Your task to perform on an android device: check battery use Image 0: 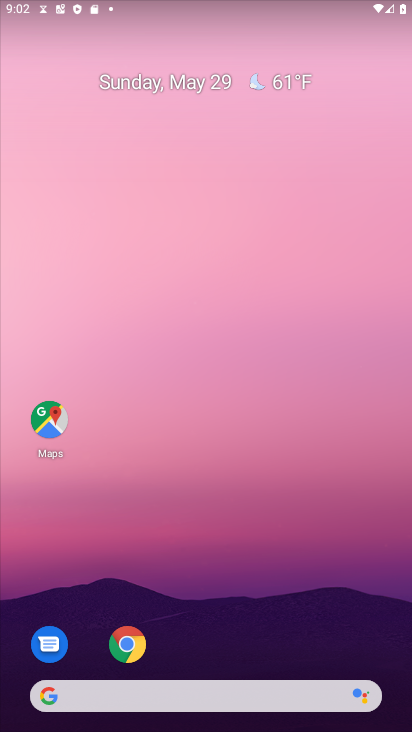
Step 0: drag from (230, 684) to (278, 302)
Your task to perform on an android device: check battery use Image 1: 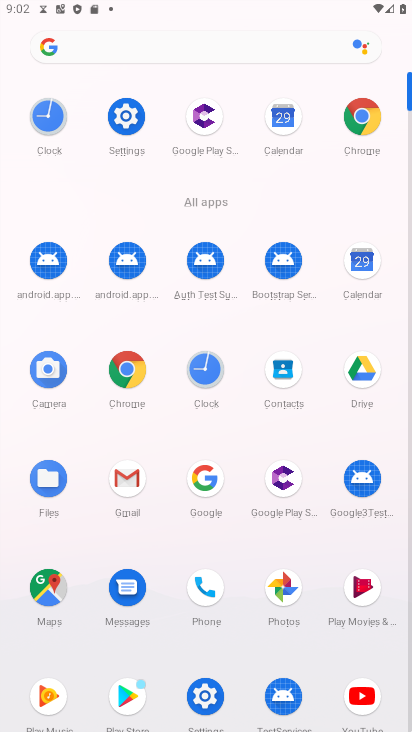
Step 1: click (122, 158)
Your task to perform on an android device: check battery use Image 2: 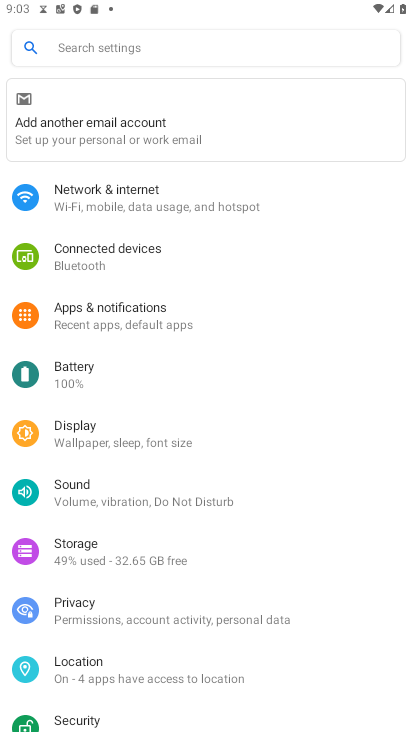
Step 2: click (95, 387)
Your task to perform on an android device: check battery use Image 3: 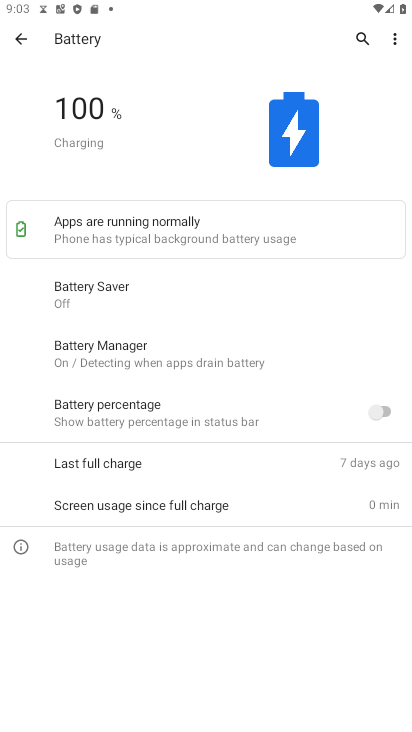
Step 3: click (396, 37)
Your task to perform on an android device: check battery use Image 4: 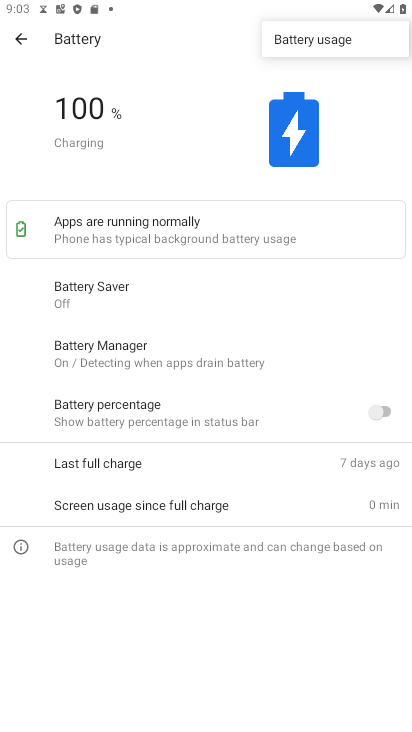
Step 4: click (346, 44)
Your task to perform on an android device: check battery use Image 5: 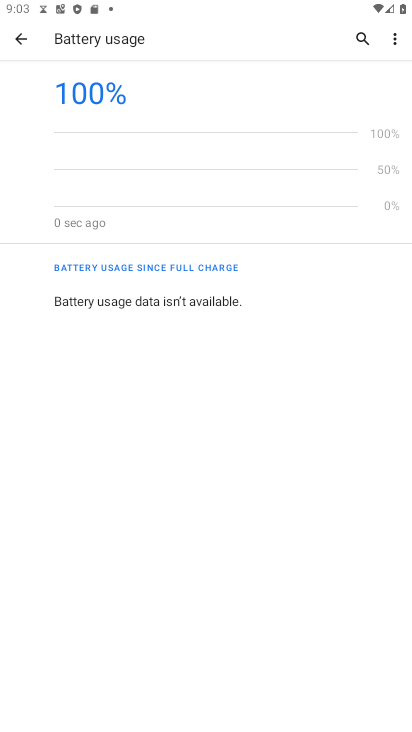
Step 5: task complete